Your task to perform on an android device: move a message to another label in the gmail app Image 0: 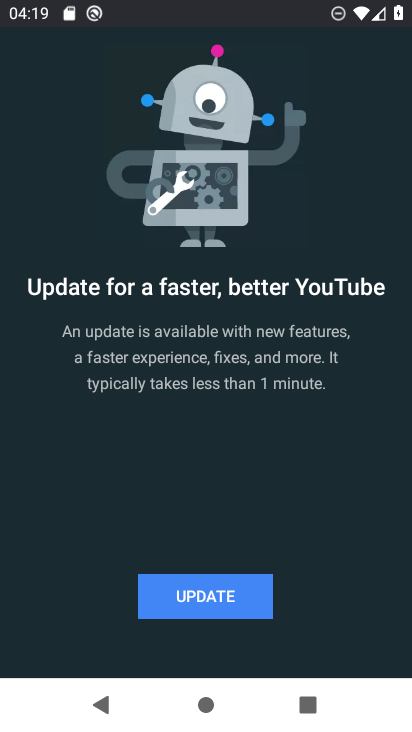
Step 0: press back button
Your task to perform on an android device: move a message to another label in the gmail app Image 1: 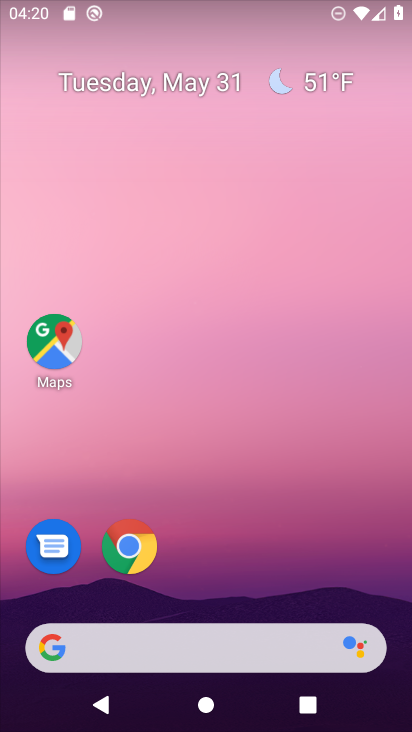
Step 1: drag from (197, 592) to (263, 155)
Your task to perform on an android device: move a message to another label in the gmail app Image 2: 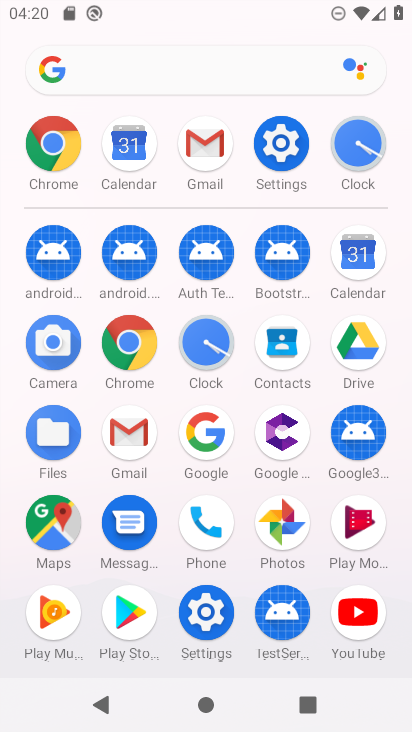
Step 2: click (123, 454)
Your task to perform on an android device: move a message to another label in the gmail app Image 3: 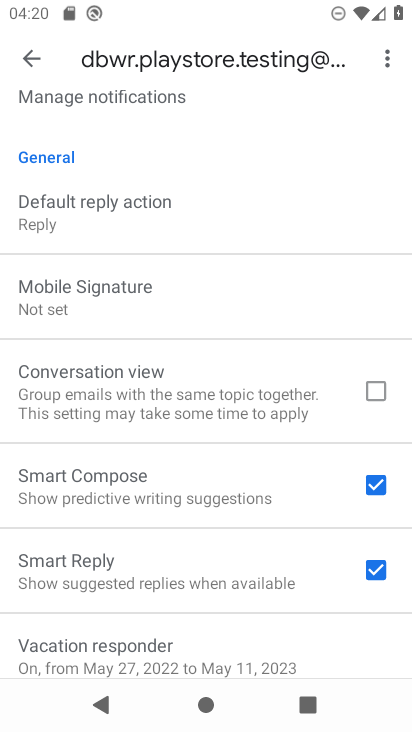
Step 3: press back button
Your task to perform on an android device: move a message to another label in the gmail app Image 4: 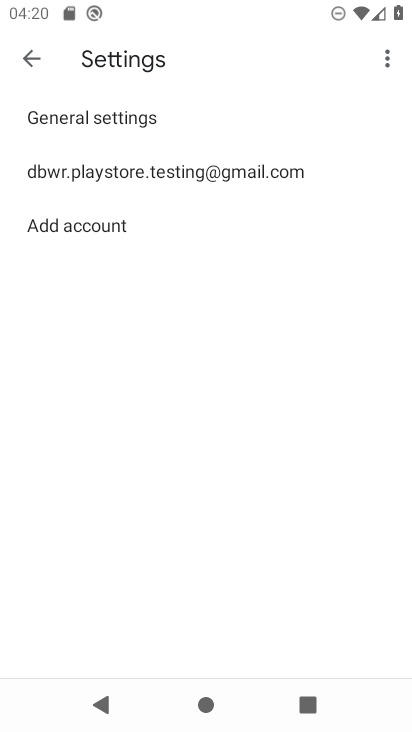
Step 4: press back button
Your task to perform on an android device: move a message to another label in the gmail app Image 5: 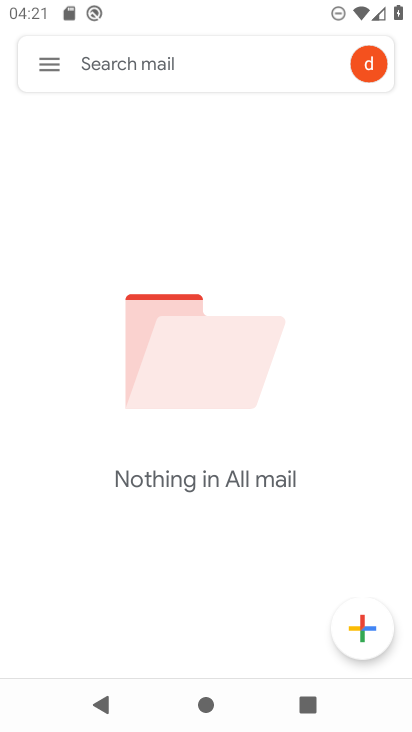
Step 5: click (46, 63)
Your task to perform on an android device: move a message to another label in the gmail app Image 6: 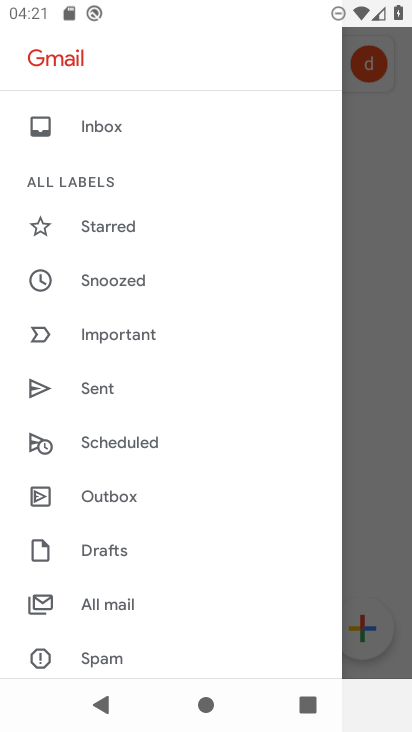
Step 6: click (118, 606)
Your task to perform on an android device: move a message to another label in the gmail app Image 7: 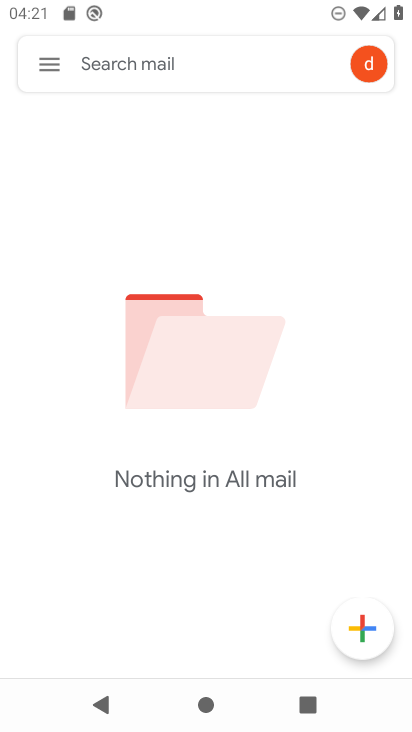
Step 7: task complete